Your task to perform on an android device: Open the Play Movies app and select the watchlist tab. Image 0: 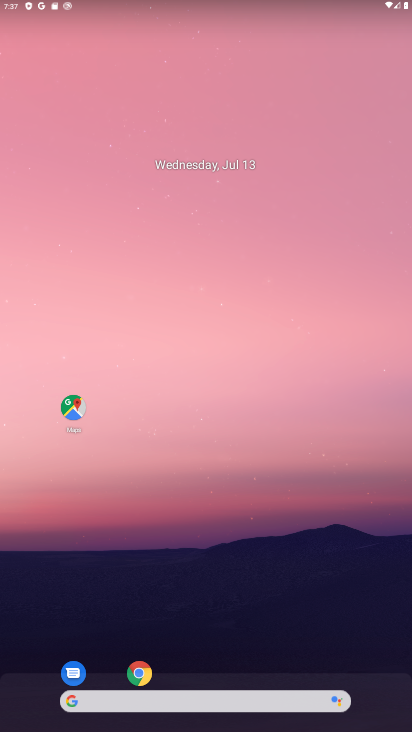
Step 0: drag from (193, 635) to (200, 233)
Your task to perform on an android device: Open the Play Movies app and select the watchlist tab. Image 1: 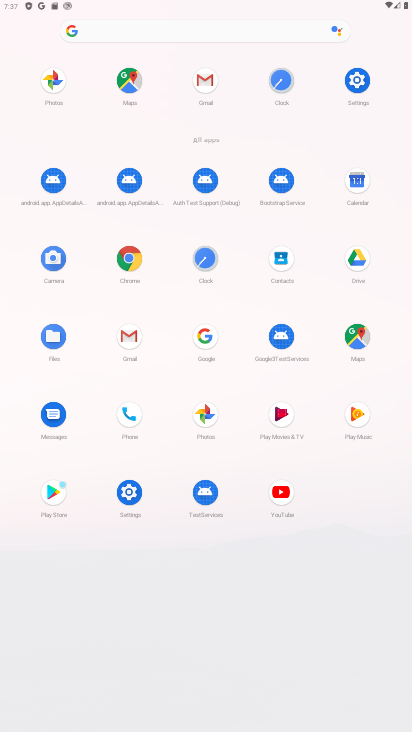
Step 1: click (286, 426)
Your task to perform on an android device: Open the Play Movies app and select the watchlist tab. Image 2: 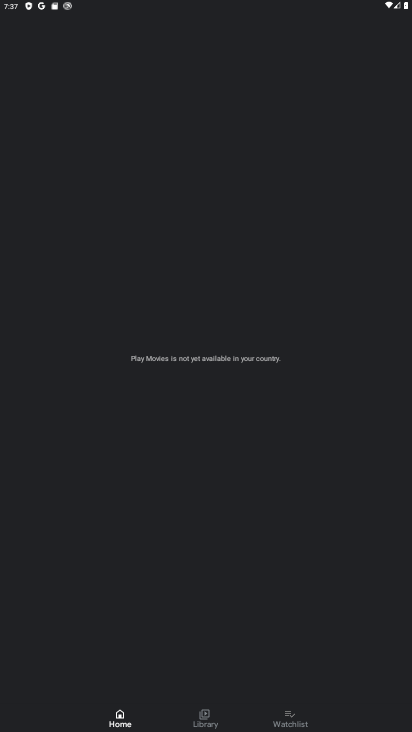
Step 2: click (284, 721)
Your task to perform on an android device: Open the Play Movies app and select the watchlist tab. Image 3: 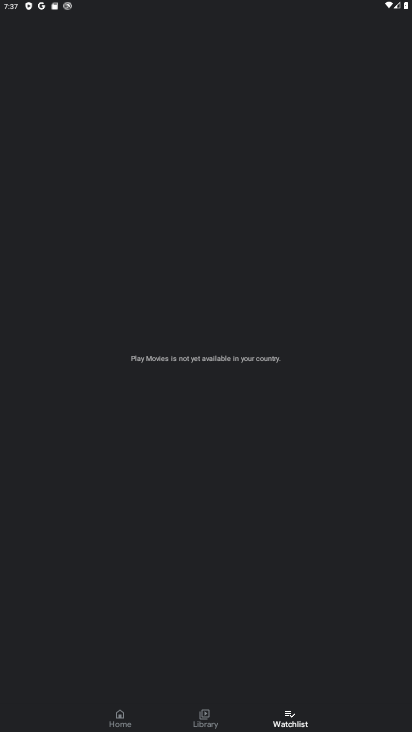
Step 3: task complete